Your task to perform on an android device: Open settings Image 0: 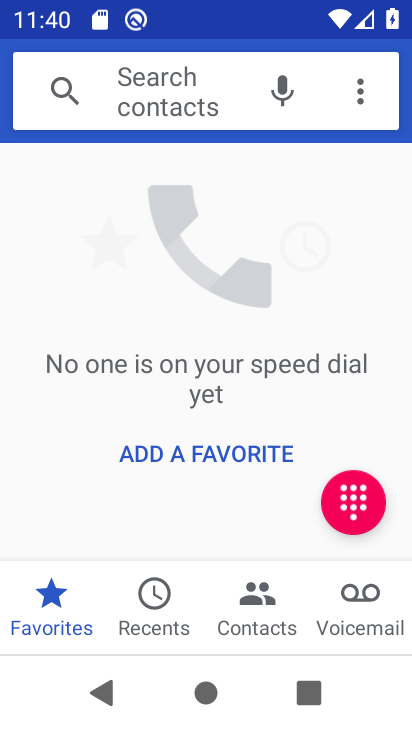
Step 0: press home button
Your task to perform on an android device: Open settings Image 1: 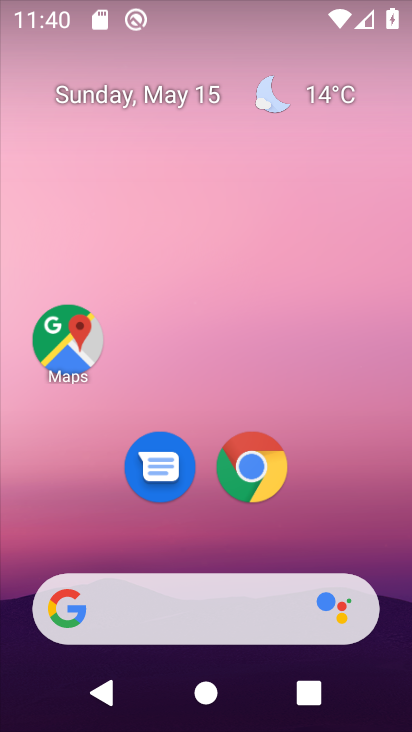
Step 1: drag from (204, 519) to (194, 165)
Your task to perform on an android device: Open settings Image 2: 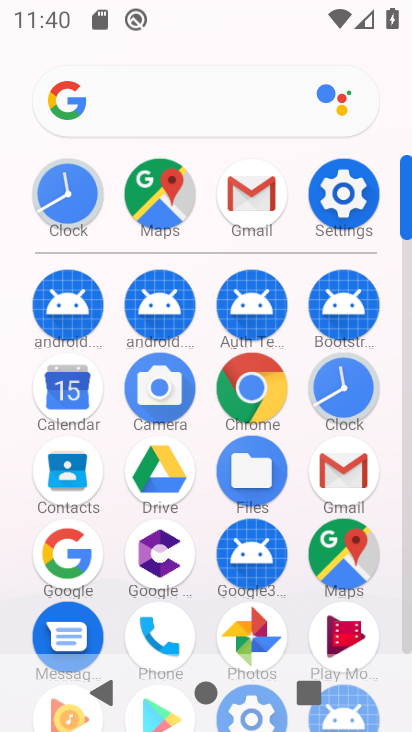
Step 2: click (343, 184)
Your task to perform on an android device: Open settings Image 3: 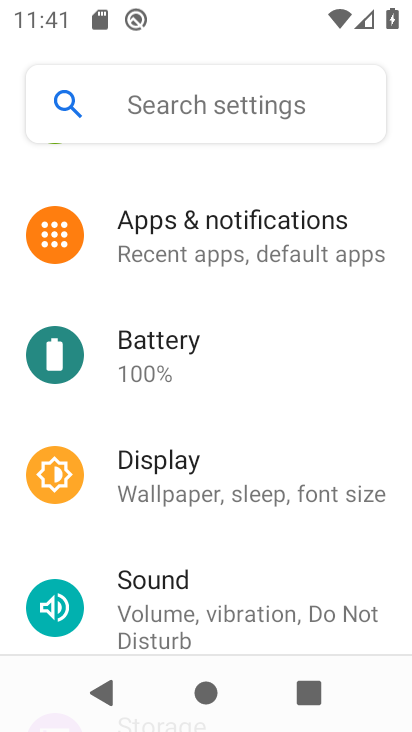
Step 3: drag from (217, 630) to (224, 190)
Your task to perform on an android device: Open settings Image 4: 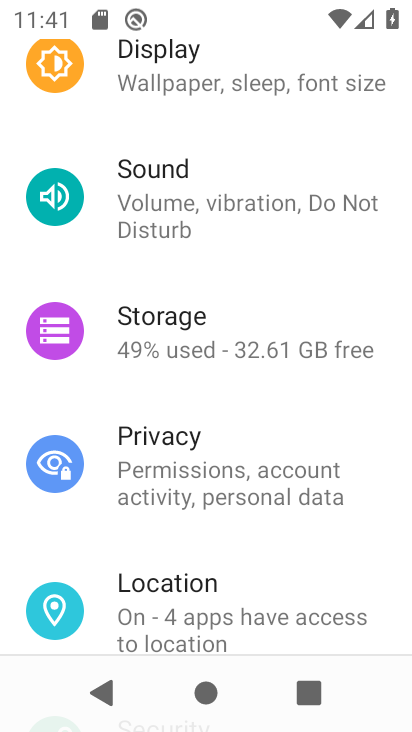
Step 4: click (221, 570)
Your task to perform on an android device: Open settings Image 5: 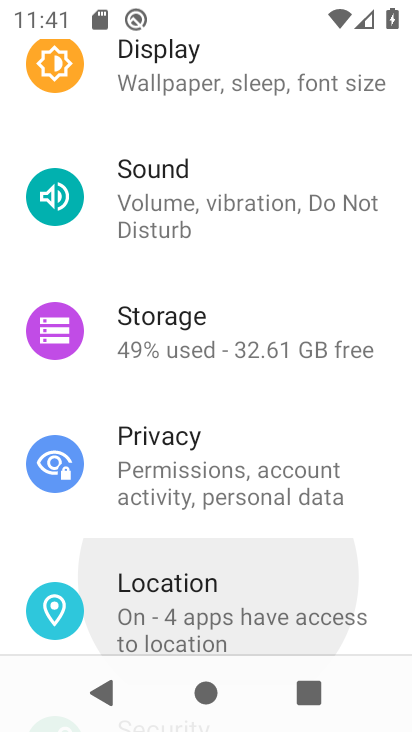
Step 5: drag from (213, 458) to (245, 39)
Your task to perform on an android device: Open settings Image 6: 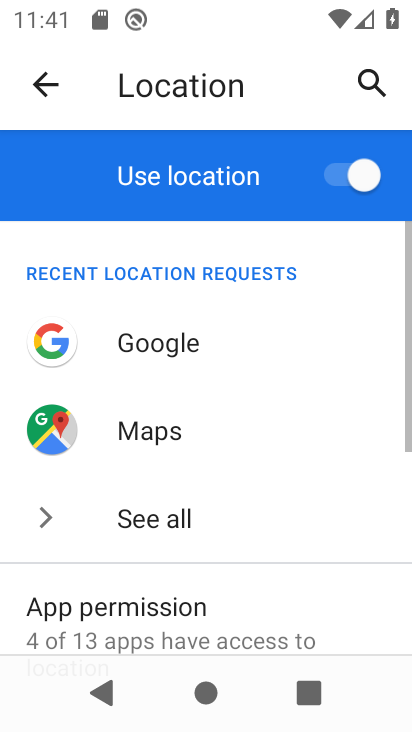
Step 6: drag from (223, 600) to (227, 182)
Your task to perform on an android device: Open settings Image 7: 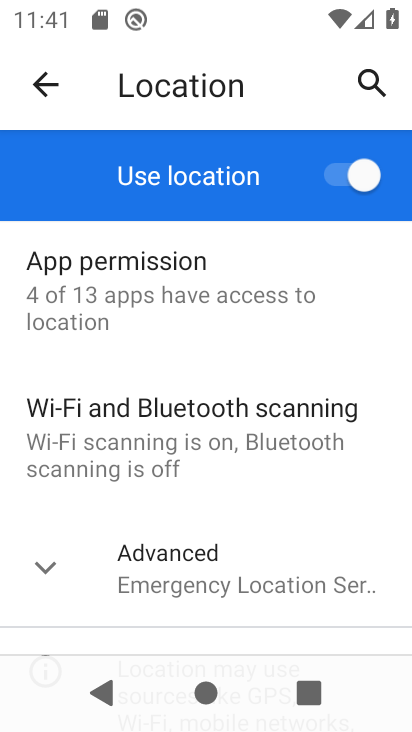
Step 7: click (42, 82)
Your task to perform on an android device: Open settings Image 8: 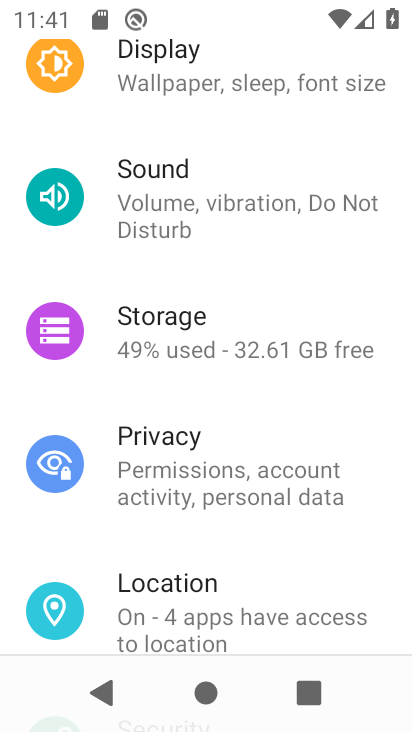
Step 8: task complete